Your task to perform on an android device: open app "Google Sheets" Image 0: 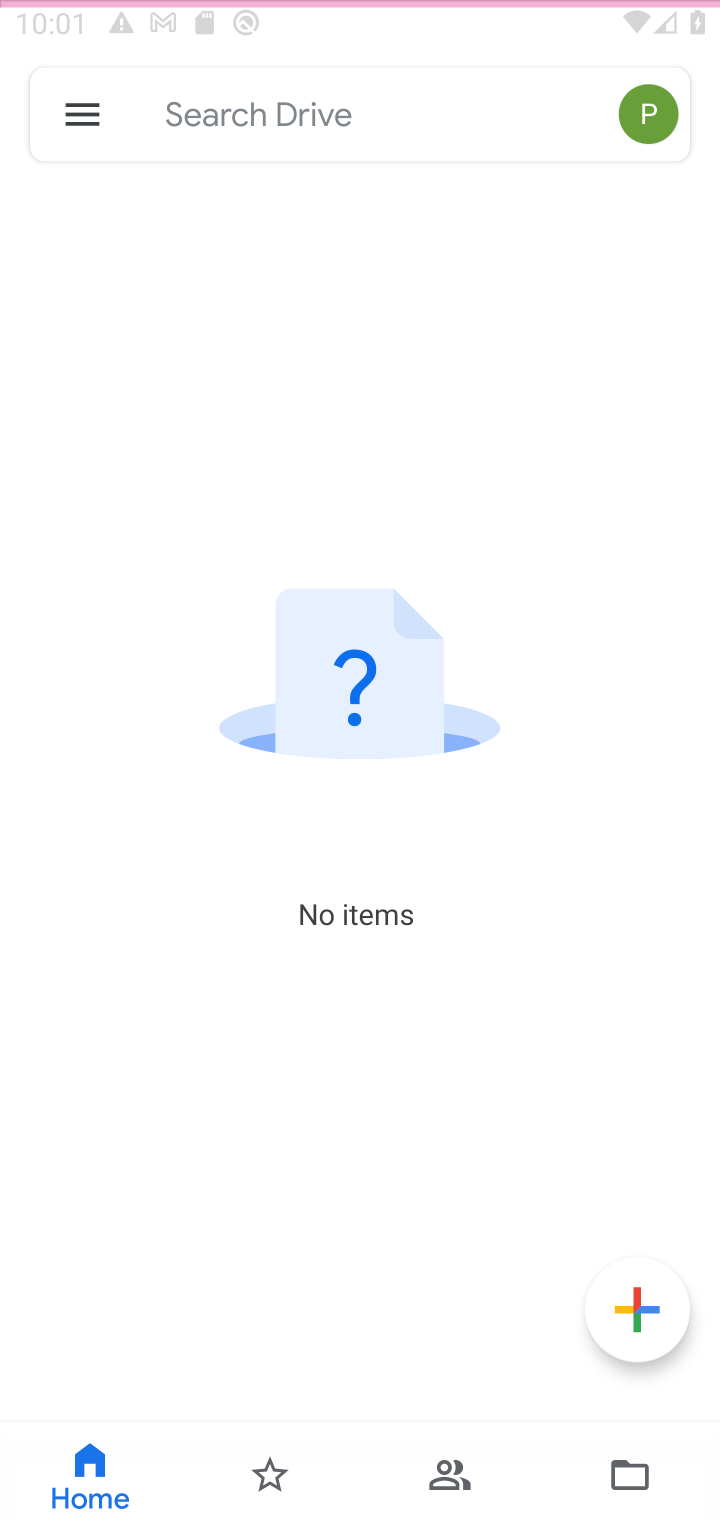
Step 0: press home button
Your task to perform on an android device: open app "Google Sheets" Image 1: 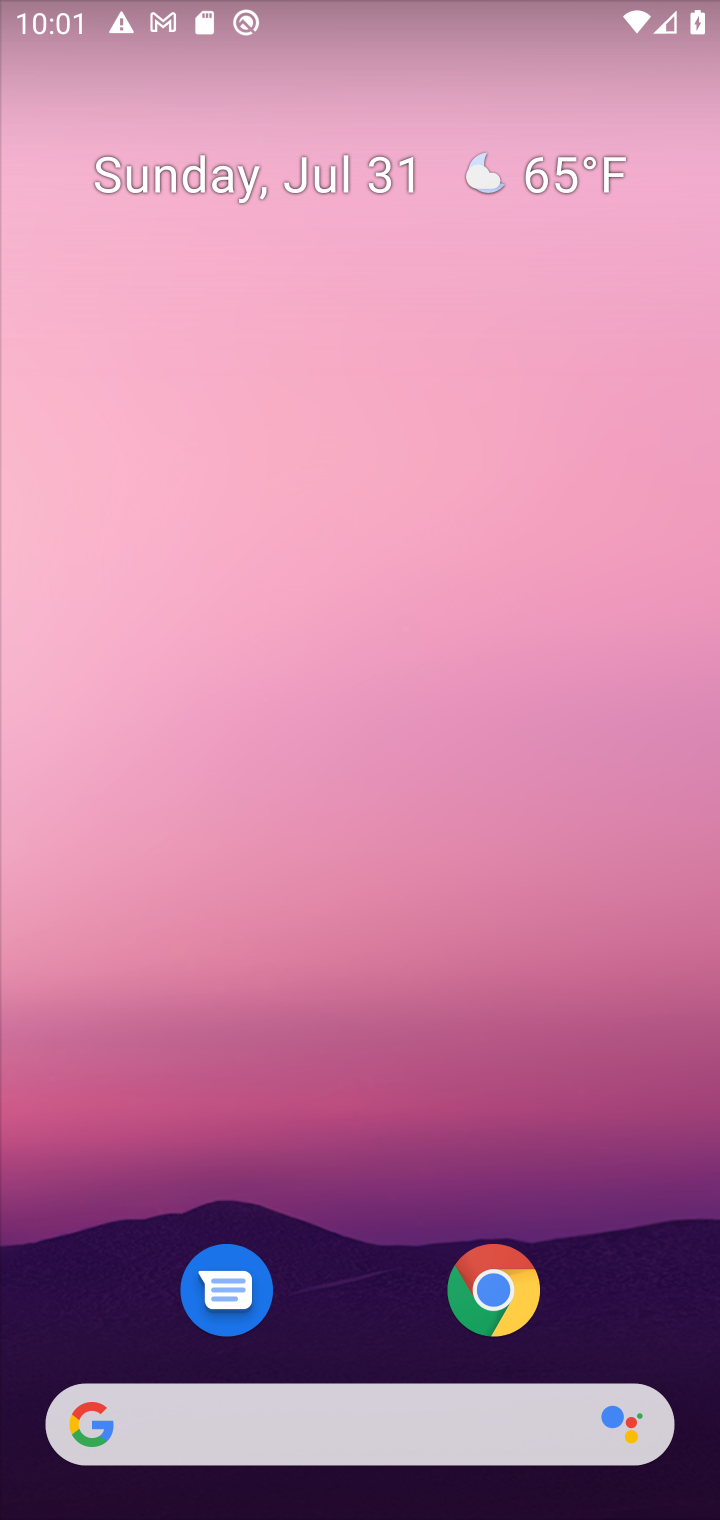
Step 1: drag from (638, 1115) to (631, 21)
Your task to perform on an android device: open app "Google Sheets" Image 2: 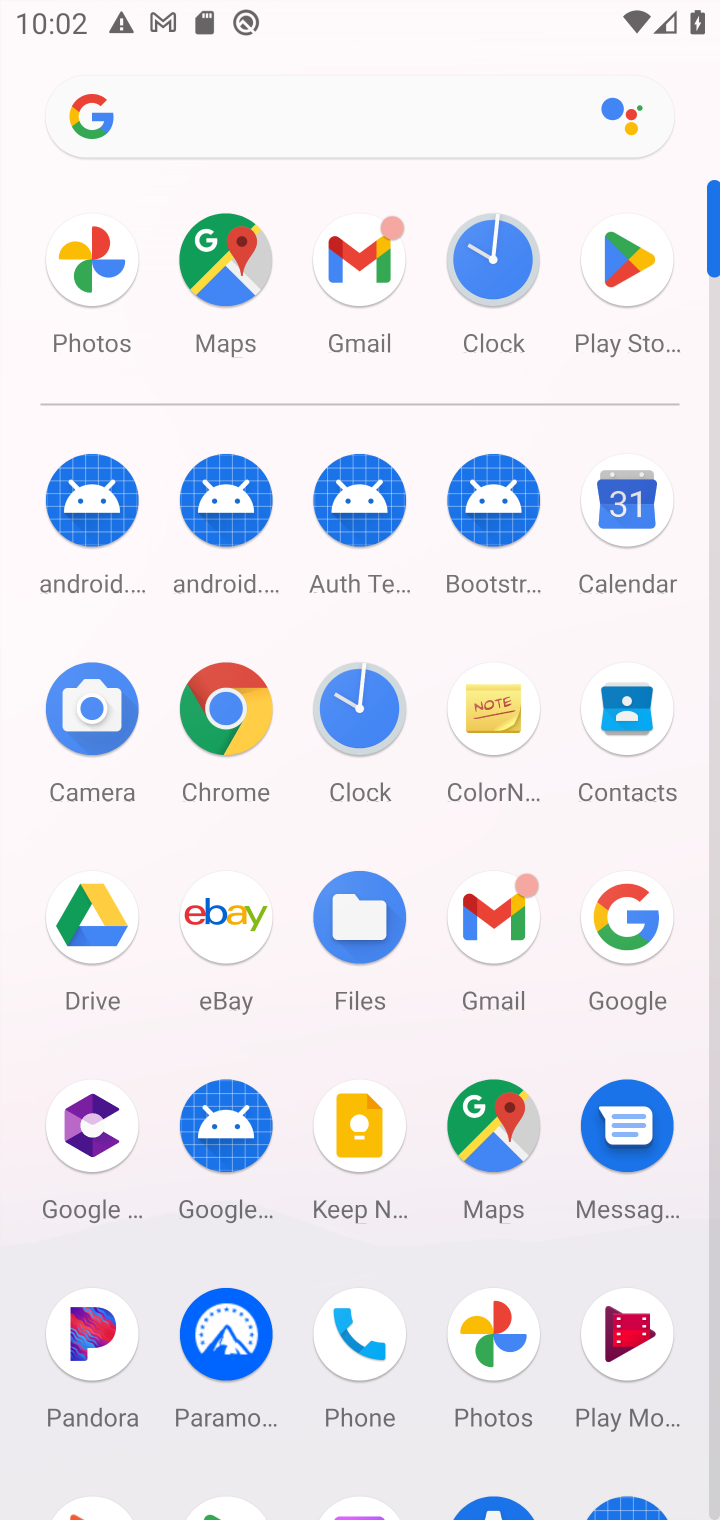
Step 2: click (614, 288)
Your task to perform on an android device: open app "Google Sheets" Image 3: 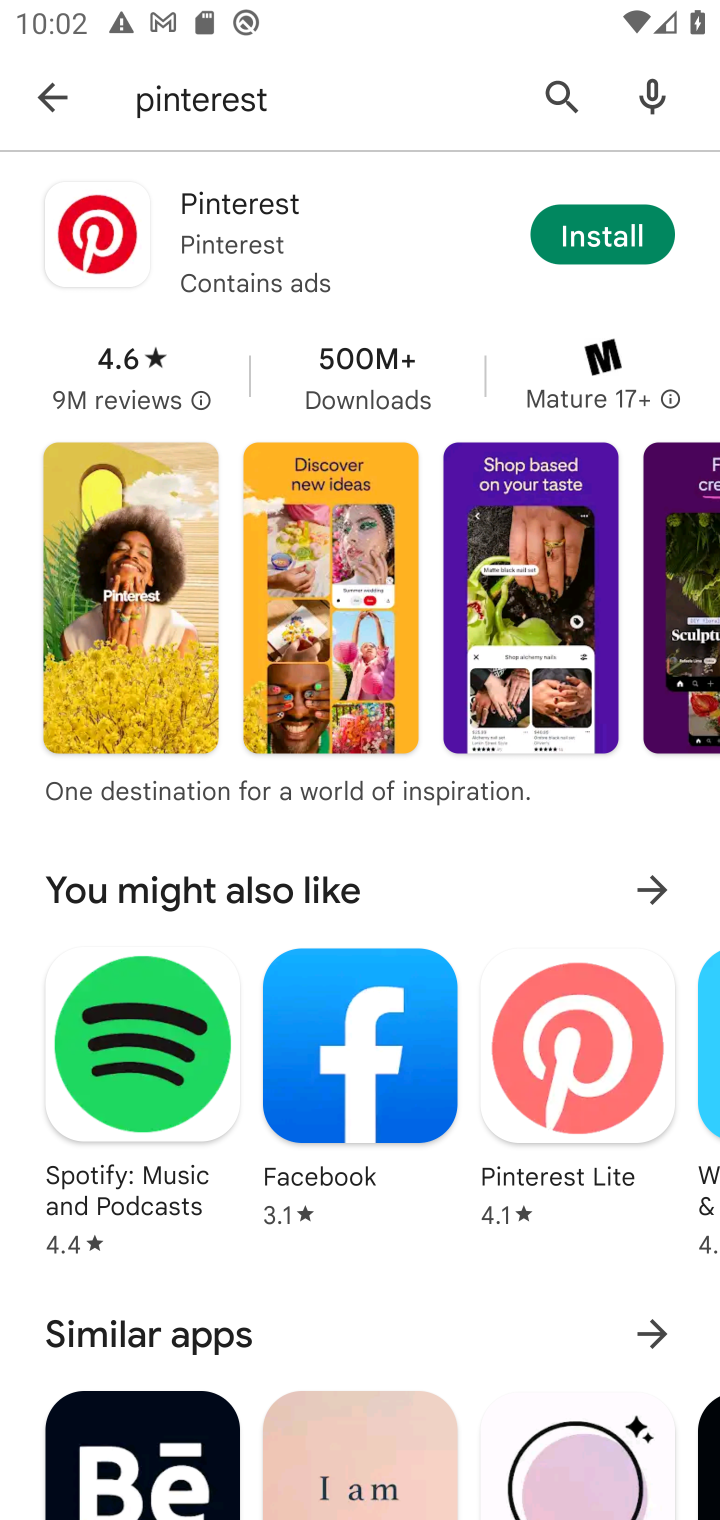
Step 3: click (554, 96)
Your task to perform on an android device: open app "Google Sheets" Image 4: 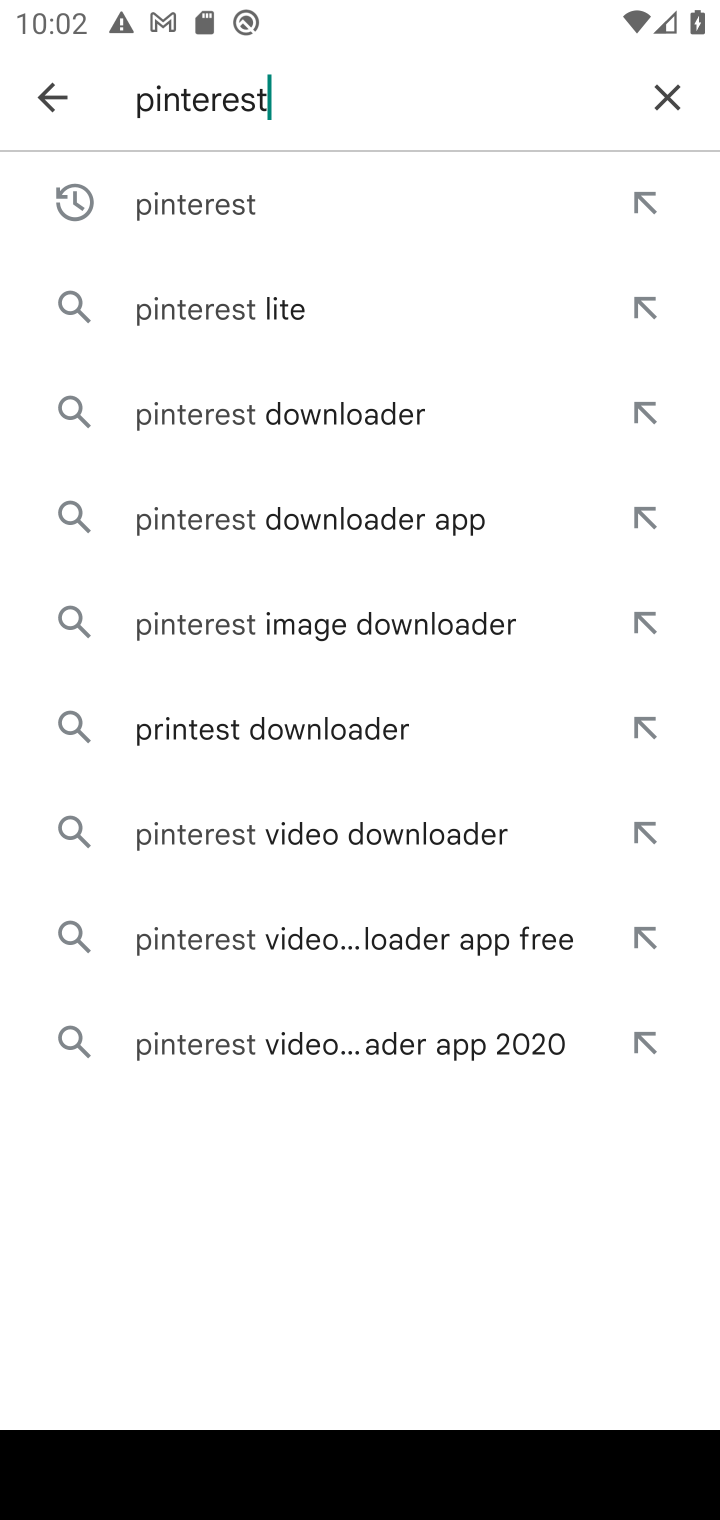
Step 4: click (671, 95)
Your task to perform on an android device: open app "Google Sheets" Image 5: 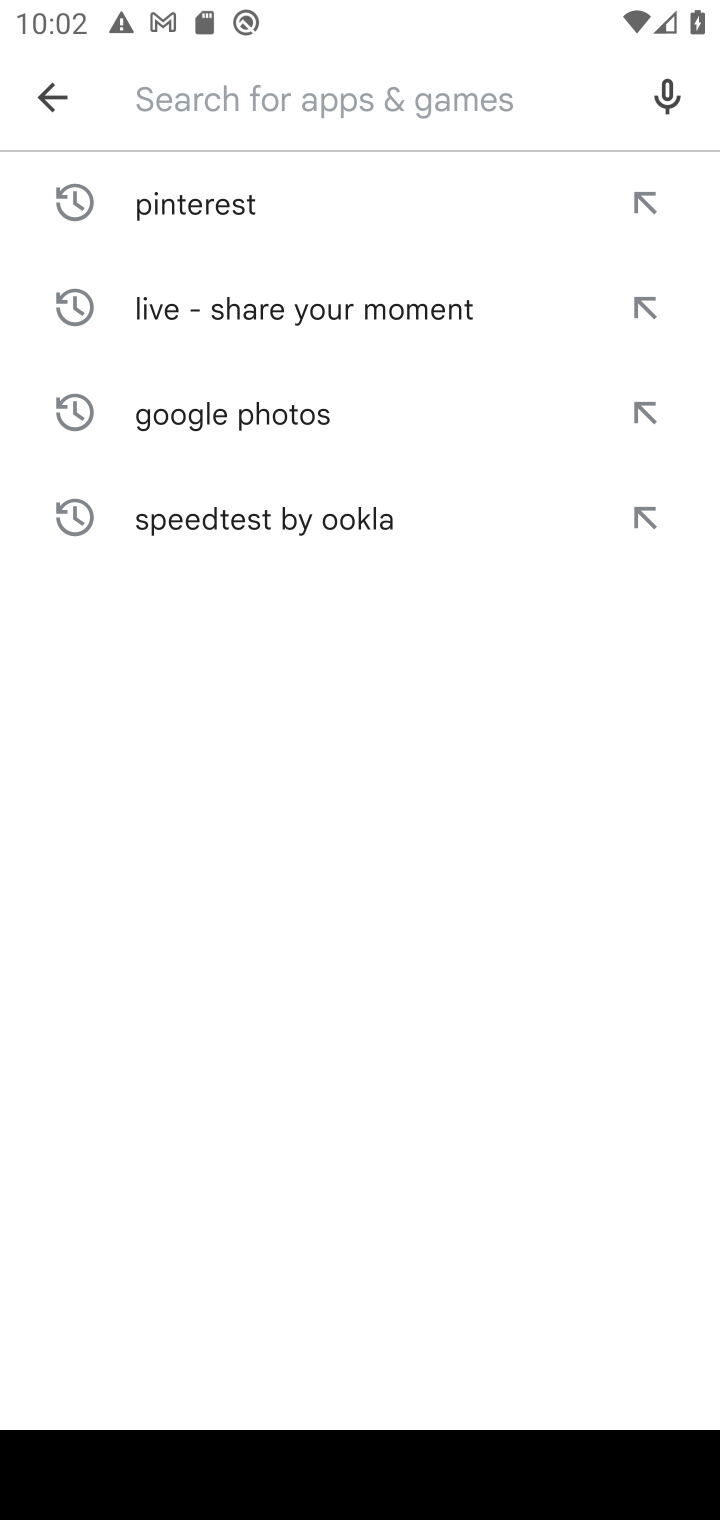
Step 5: type "Google Sheets"
Your task to perform on an android device: open app "Google Sheets" Image 6: 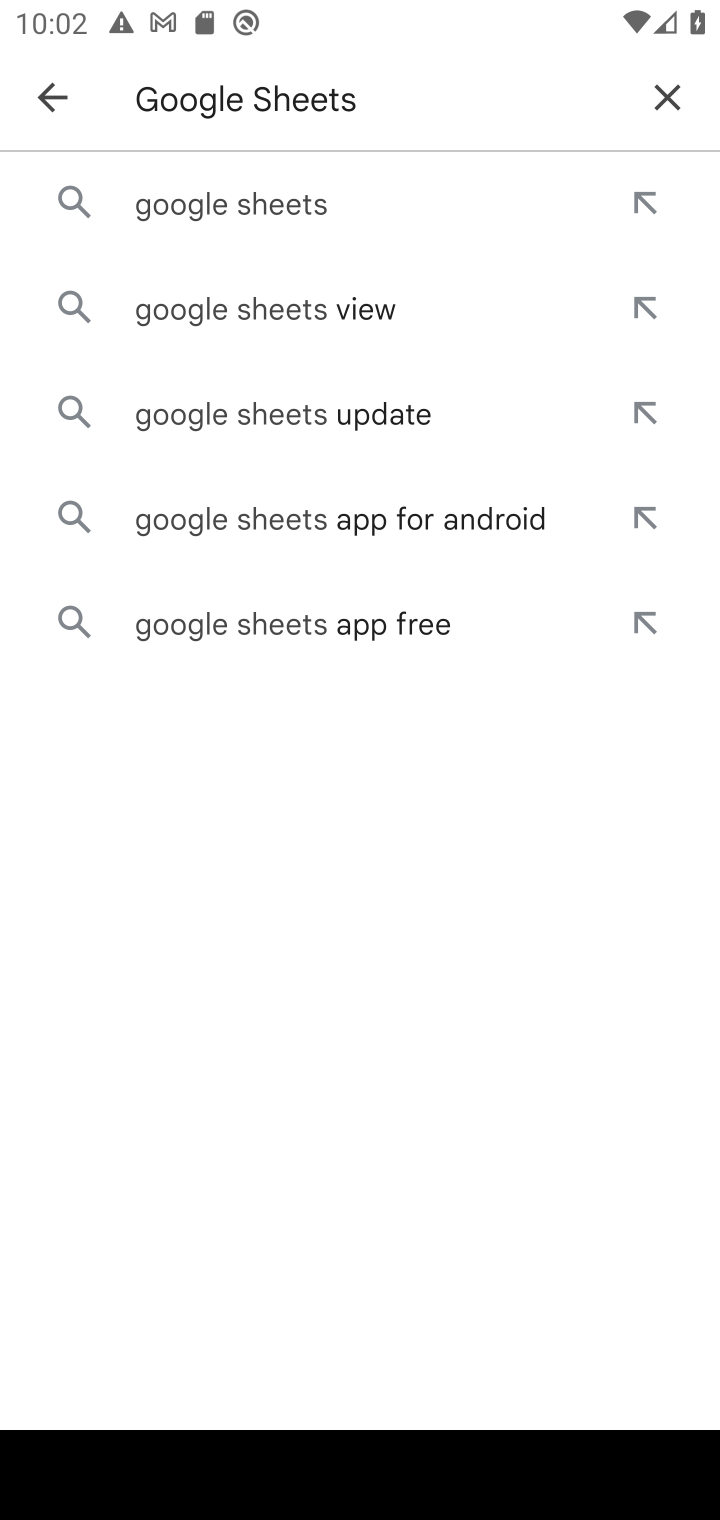
Step 6: click (280, 209)
Your task to perform on an android device: open app "Google Sheets" Image 7: 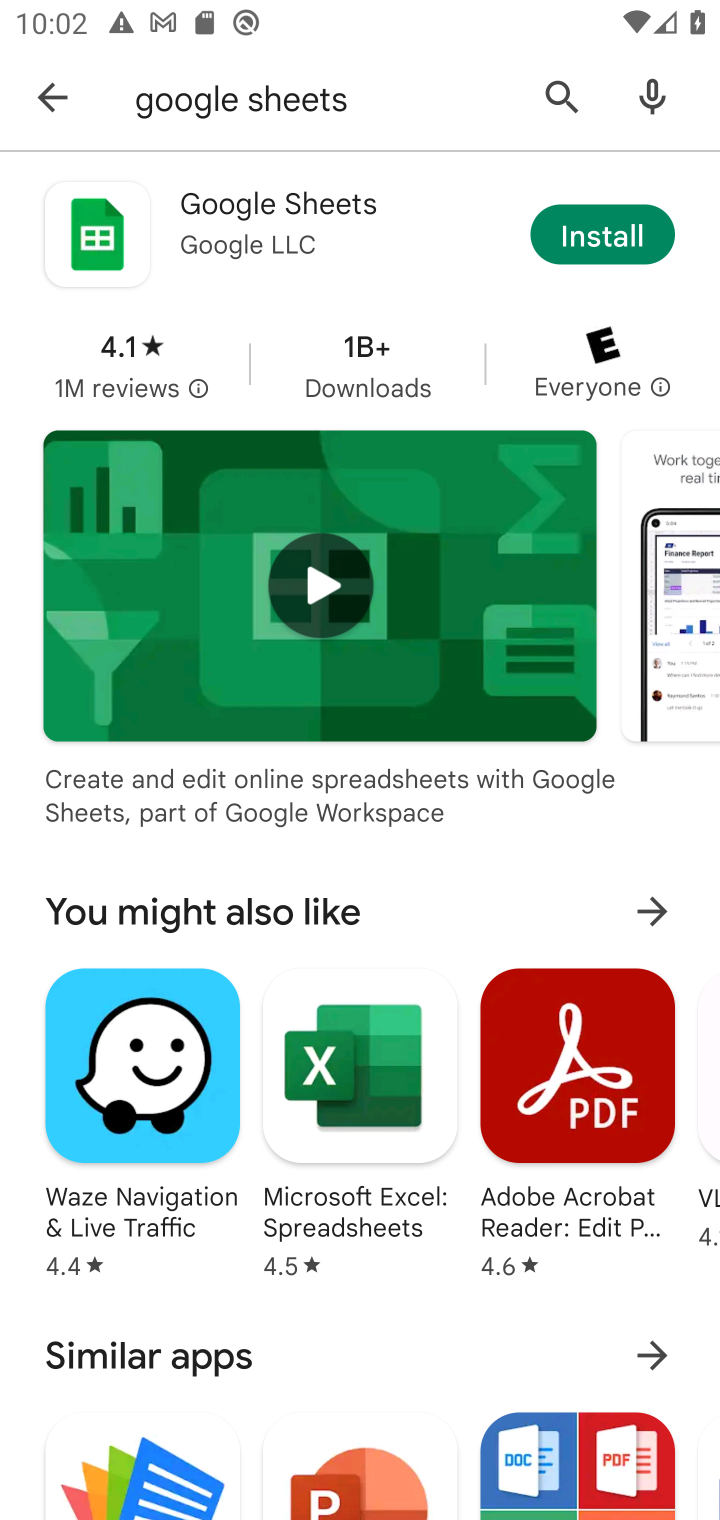
Step 7: task complete